Your task to perform on an android device: Show me popular games on the Play Store Image 0: 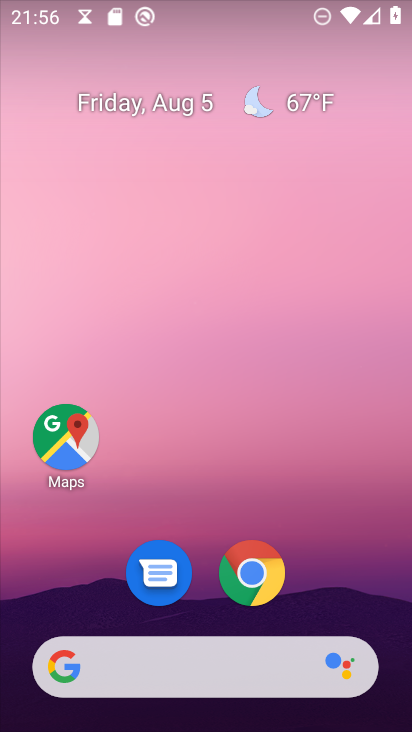
Step 0: drag from (195, 653) to (236, 89)
Your task to perform on an android device: Show me popular games on the Play Store Image 1: 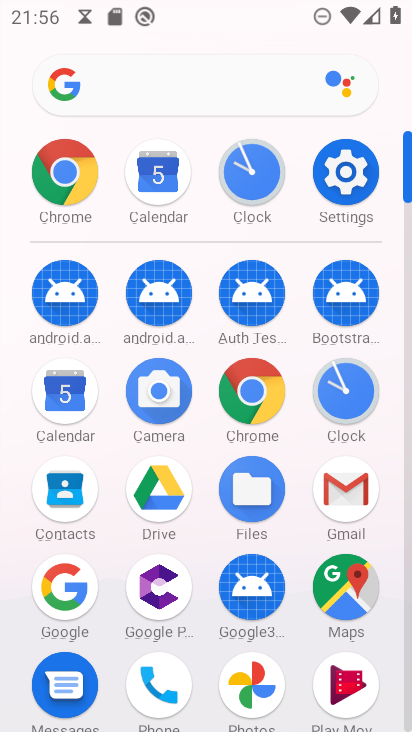
Step 1: drag from (193, 592) to (217, 230)
Your task to perform on an android device: Show me popular games on the Play Store Image 2: 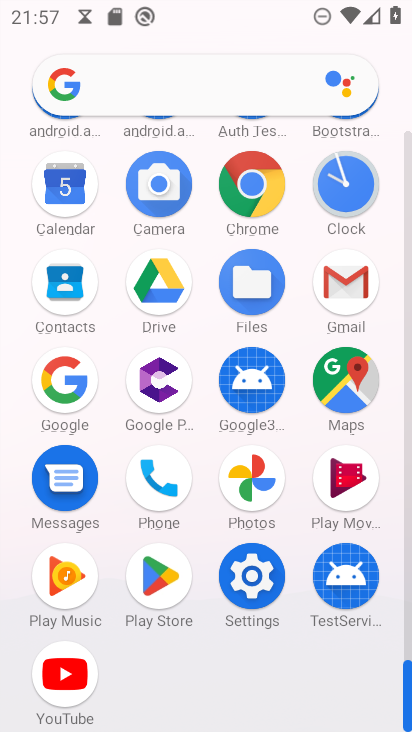
Step 2: click (164, 579)
Your task to perform on an android device: Show me popular games on the Play Store Image 3: 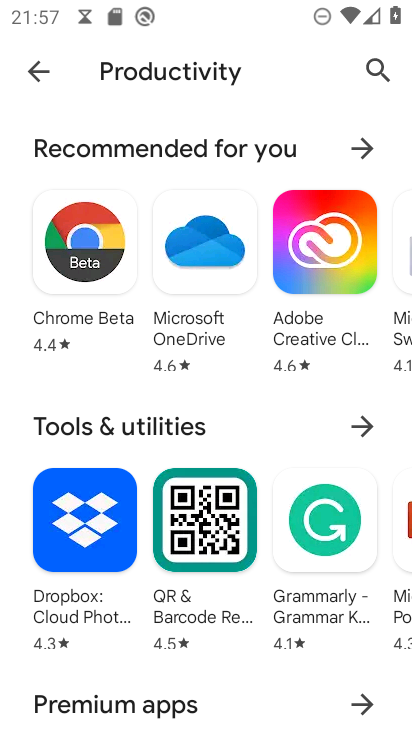
Step 3: click (378, 71)
Your task to perform on an android device: Show me popular games on the Play Store Image 4: 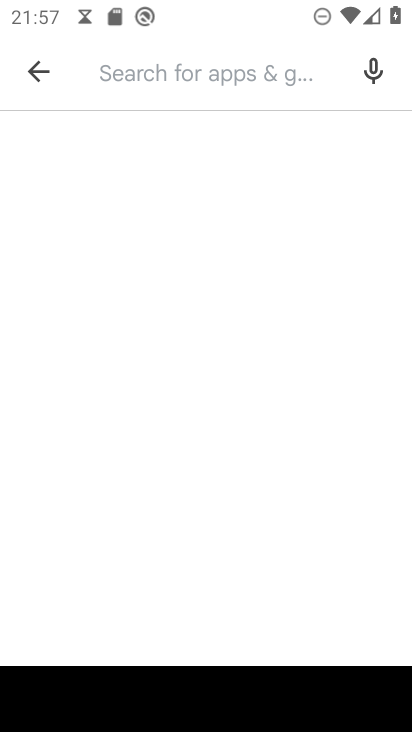
Step 4: type "popular games"
Your task to perform on an android device: Show me popular games on the Play Store Image 5: 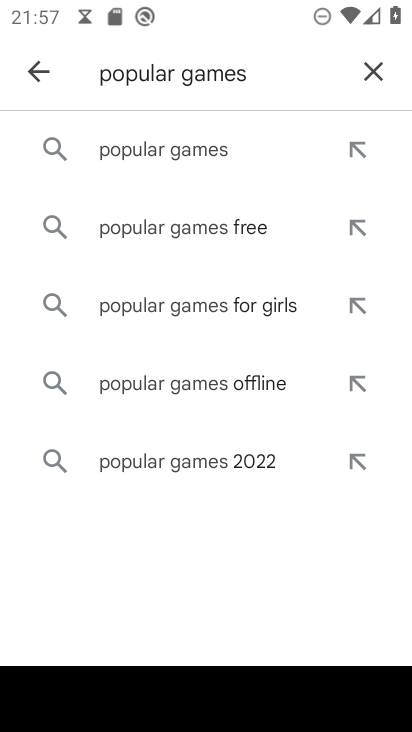
Step 5: click (202, 155)
Your task to perform on an android device: Show me popular games on the Play Store Image 6: 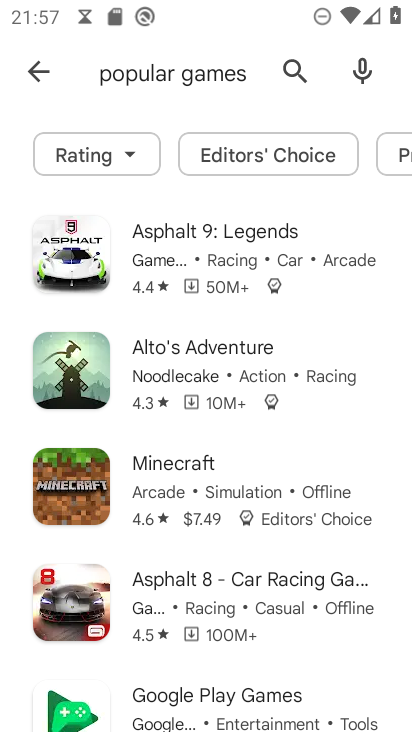
Step 6: task complete